Your task to perform on an android device: turn on javascript in the chrome app Image 0: 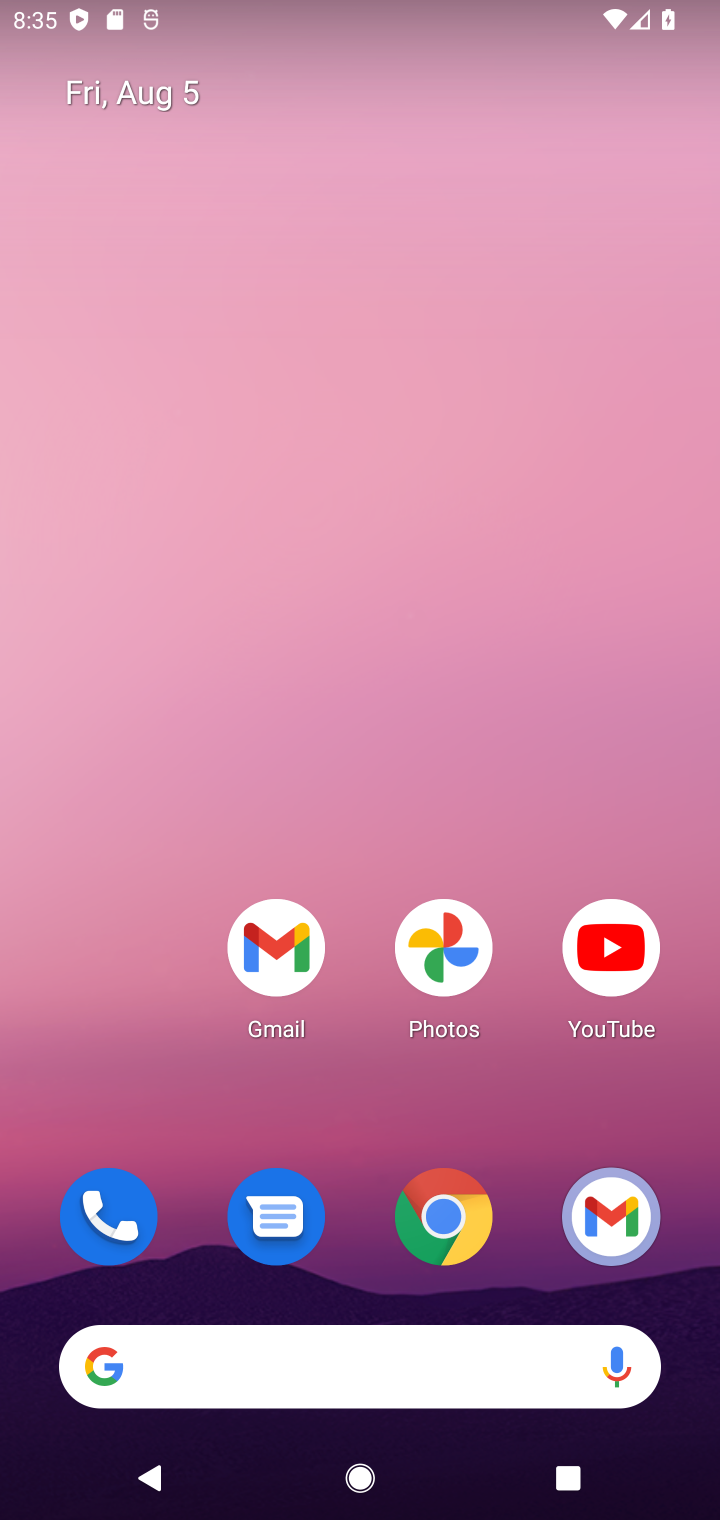
Step 0: drag from (350, 1256) to (376, 283)
Your task to perform on an android device: turn on javascript in the chrome app Image 1: 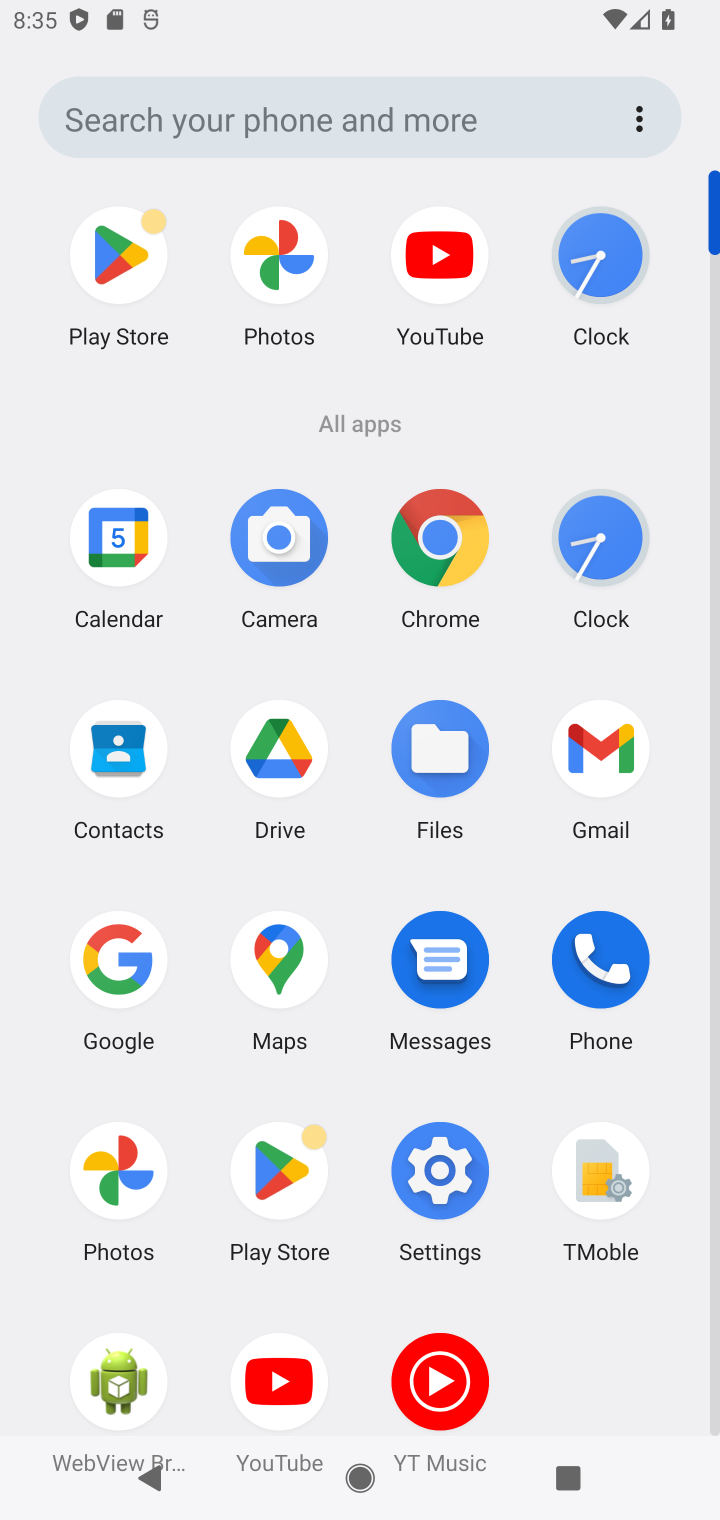
Step 1: click (443, 541)
Your task to perform on an android device: turn on javascript in the chrome app Image 2: 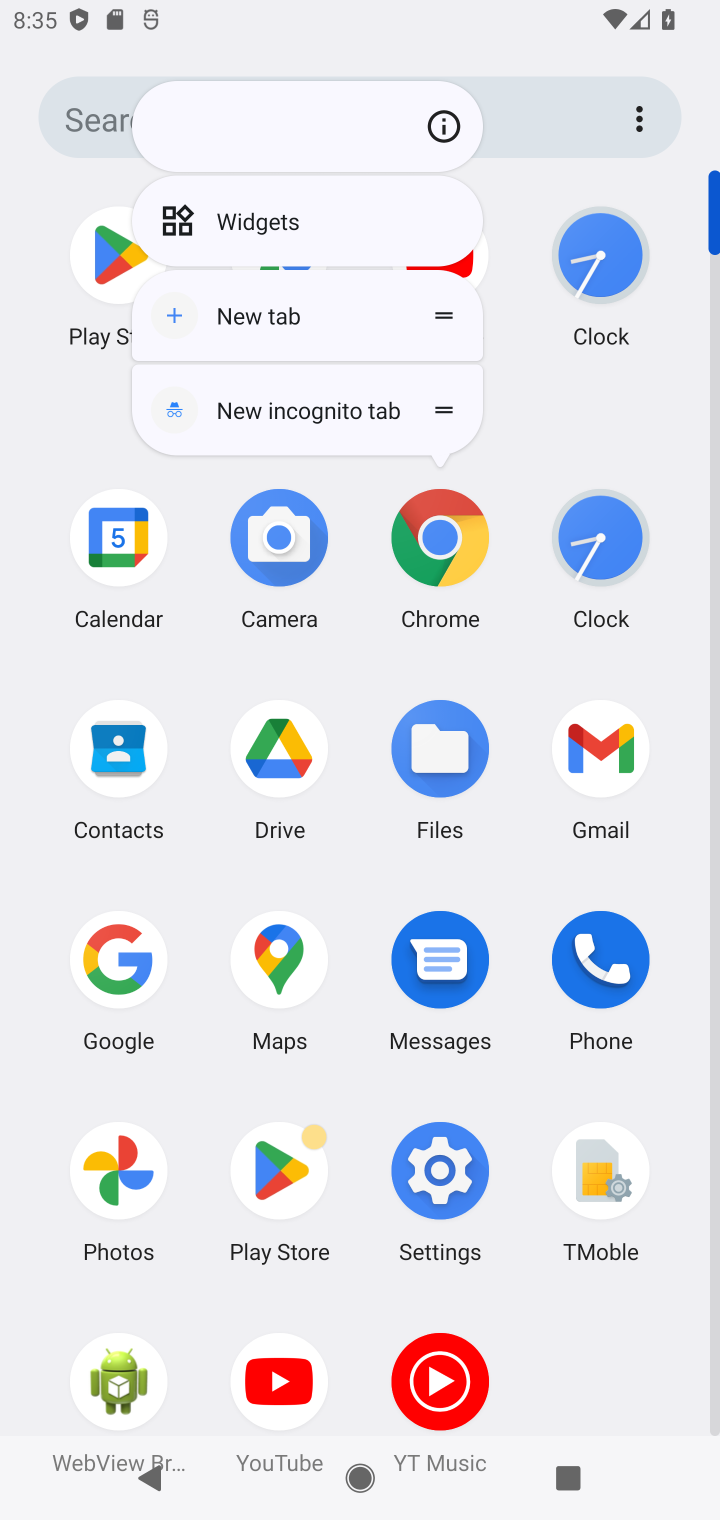
Step 2: click (433, 111)
Your task to perform on an android device: turn on javascript in the chrome app Image 3: 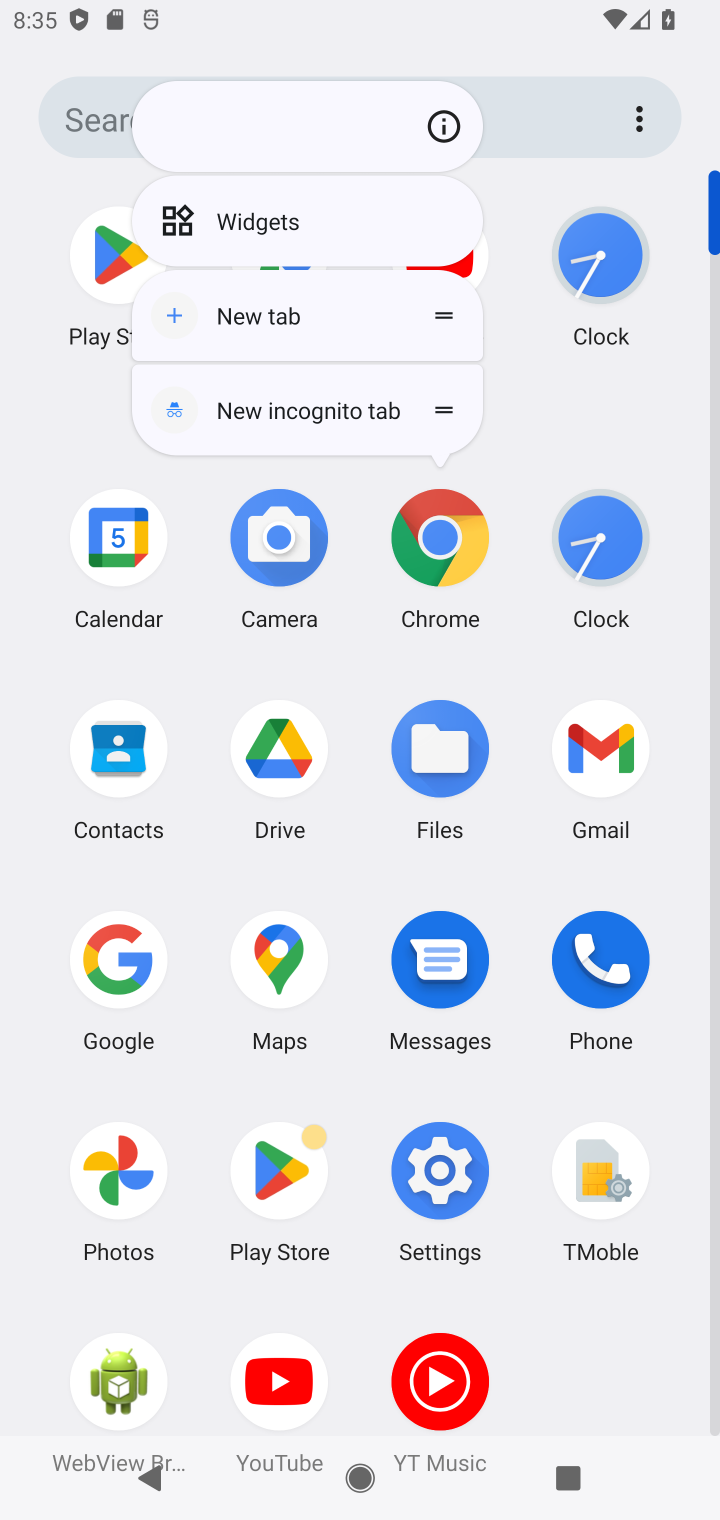
Step 3: click (436, 114)
Your task to perform on an android device: turn on javascript in the chrome app Image 4: 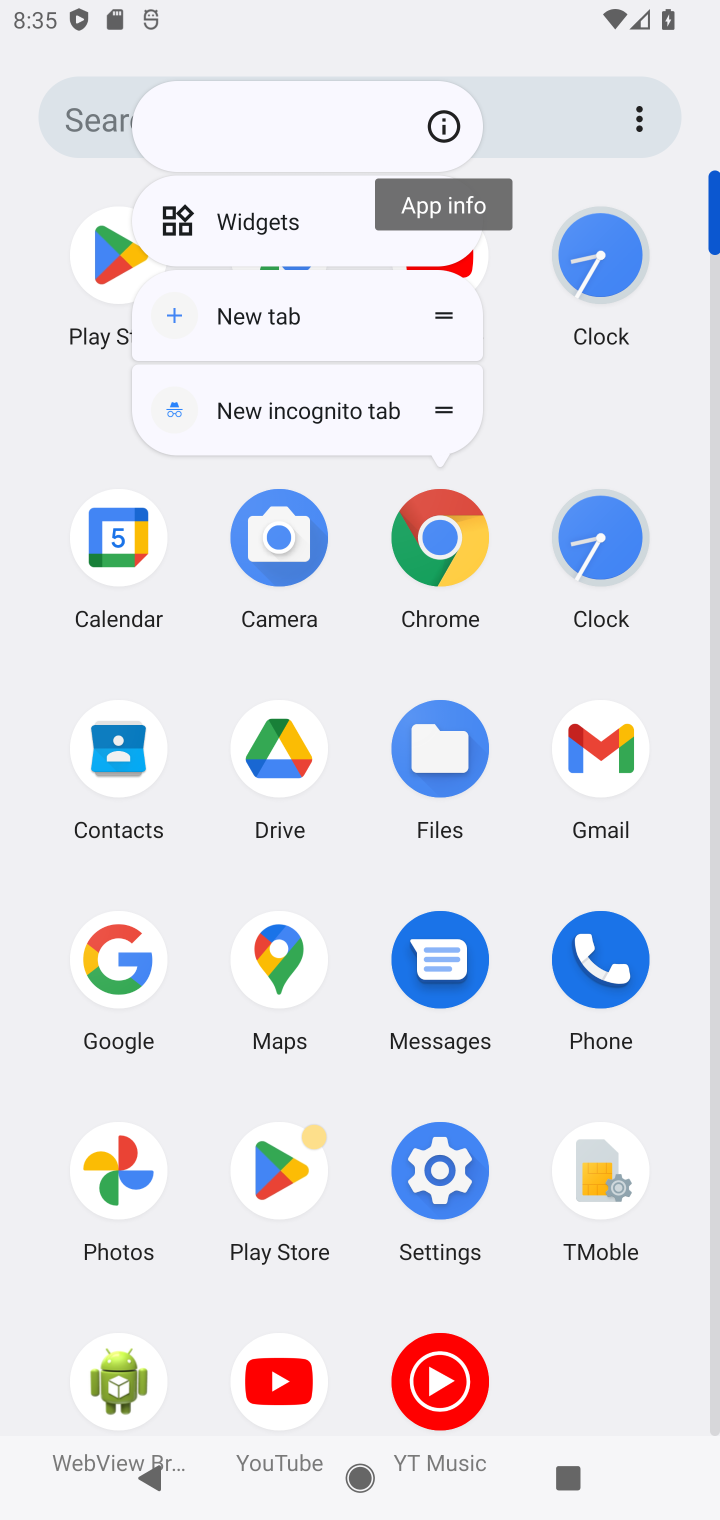
Step 4: click (436, 114)
Your task to perform on an android device: turn on javascript in the chrome app Image 5: 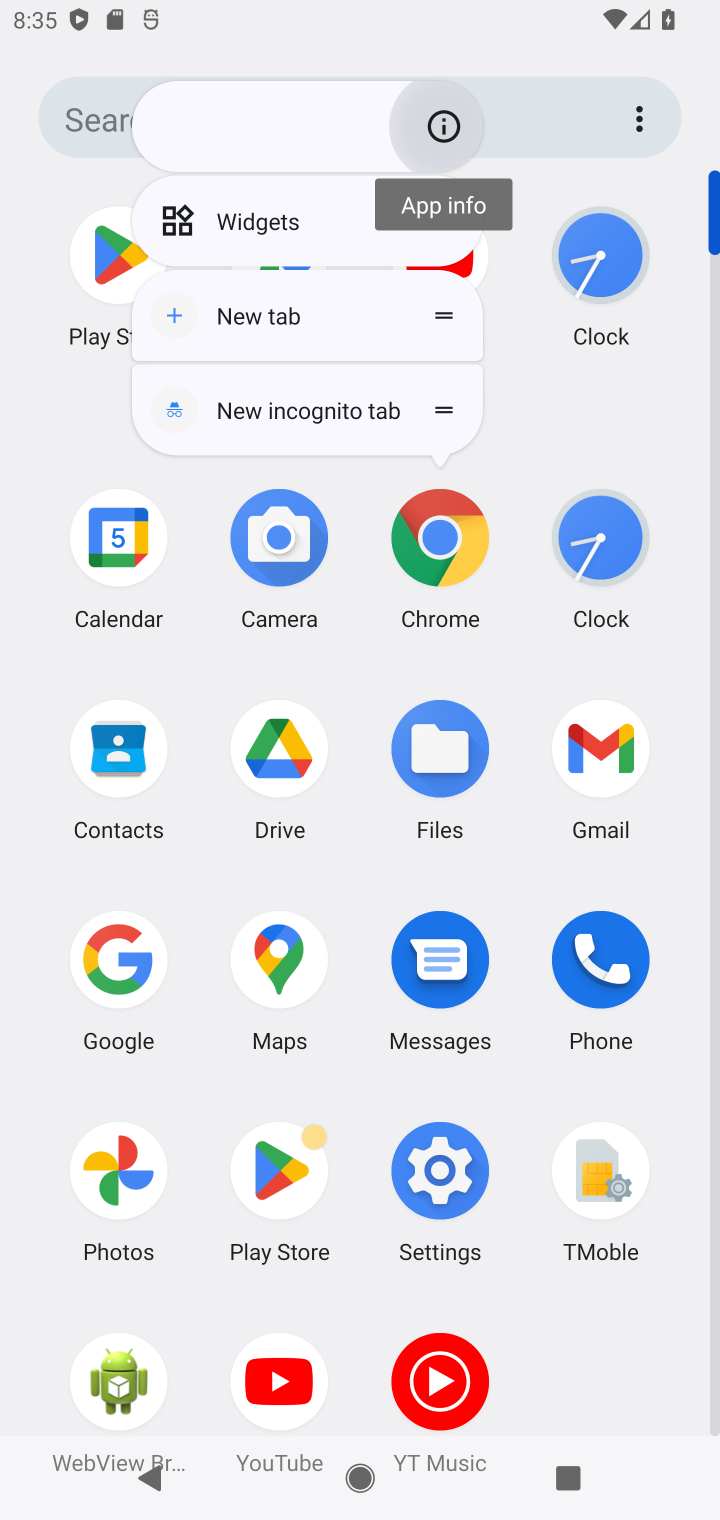
Step 5: click (438, 112)
Your task to perform on an android device: turn on javascript in the chrome app Image 6: 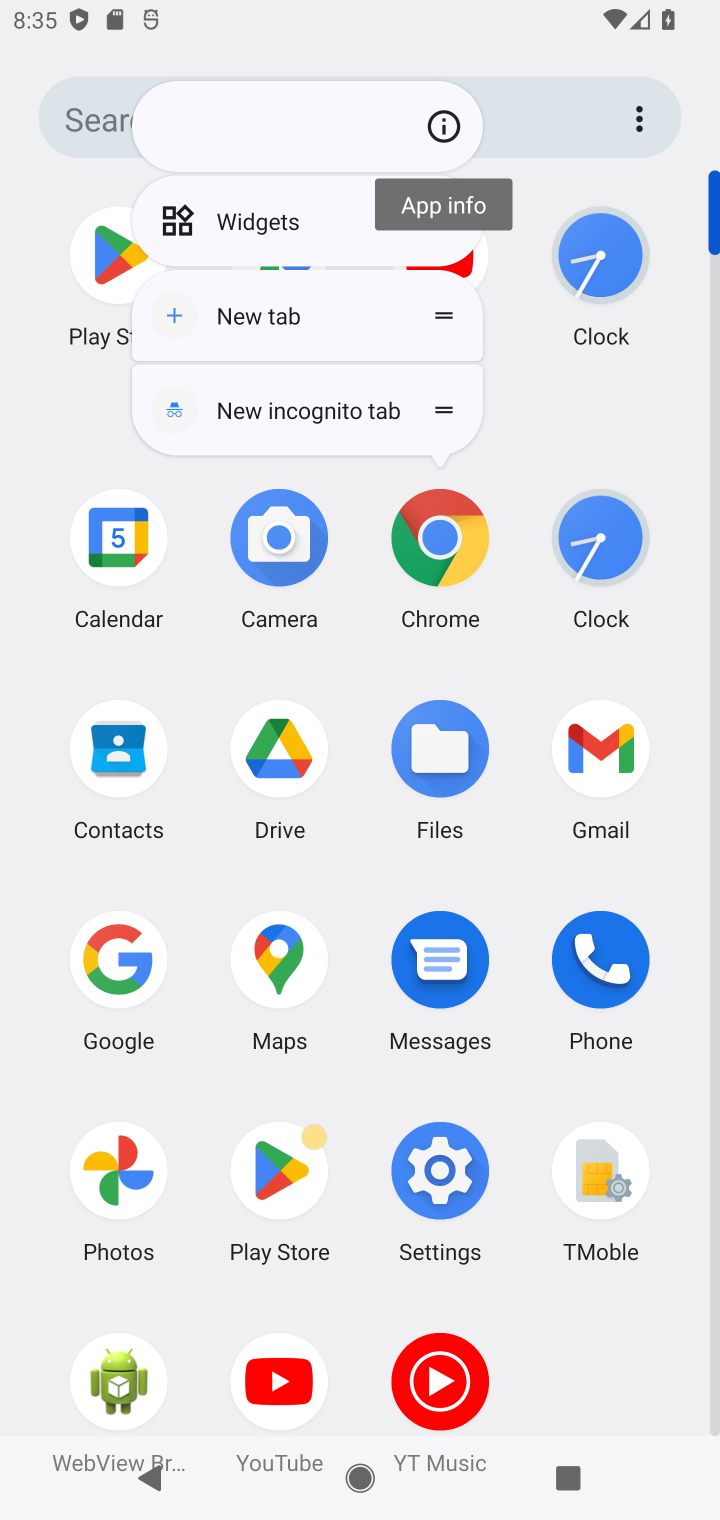
Step 6: click (412, 114)
Your task to perform on an android device: turn on javascript in the chrome app Image 7: 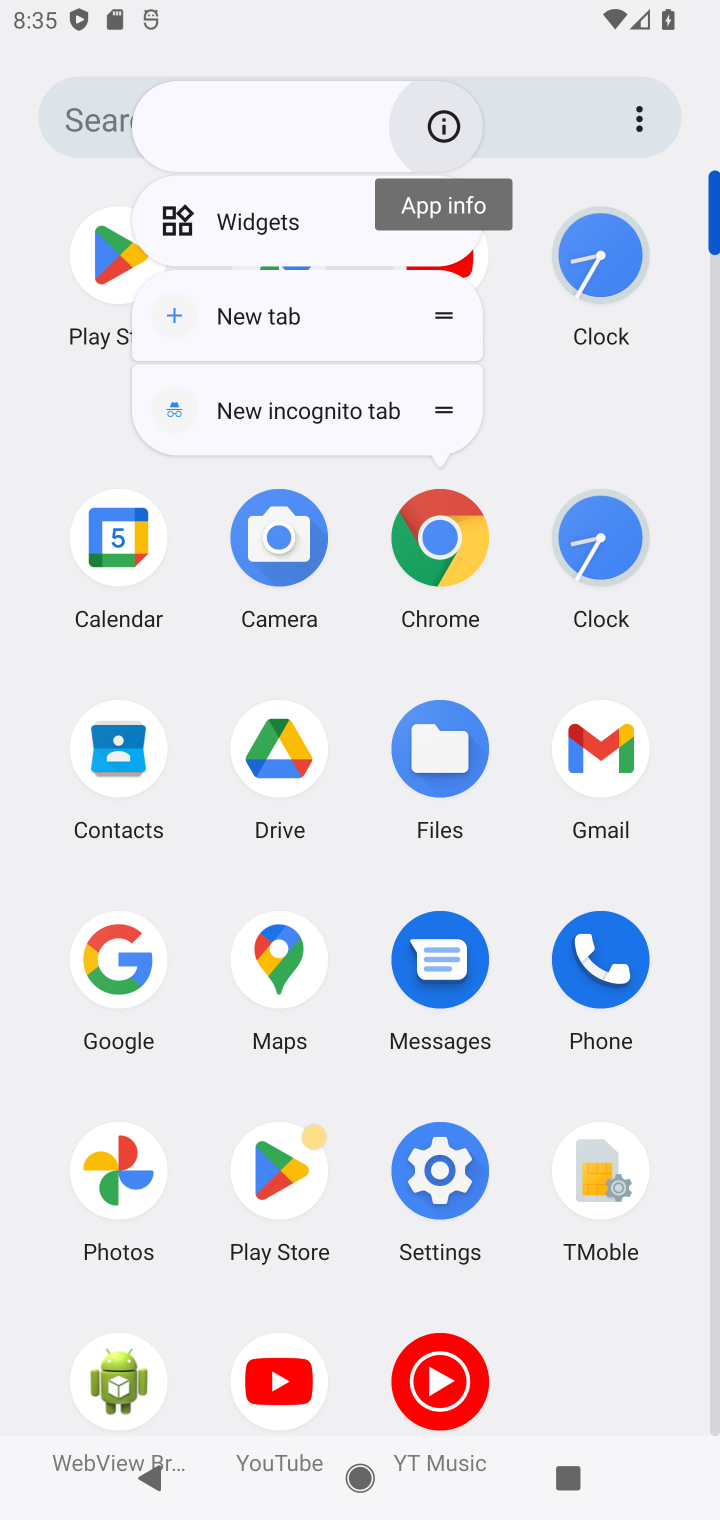
Step 7: click (445, 559)
Your task to perform on an android device: turn on javascript in the chrome app Image 8: 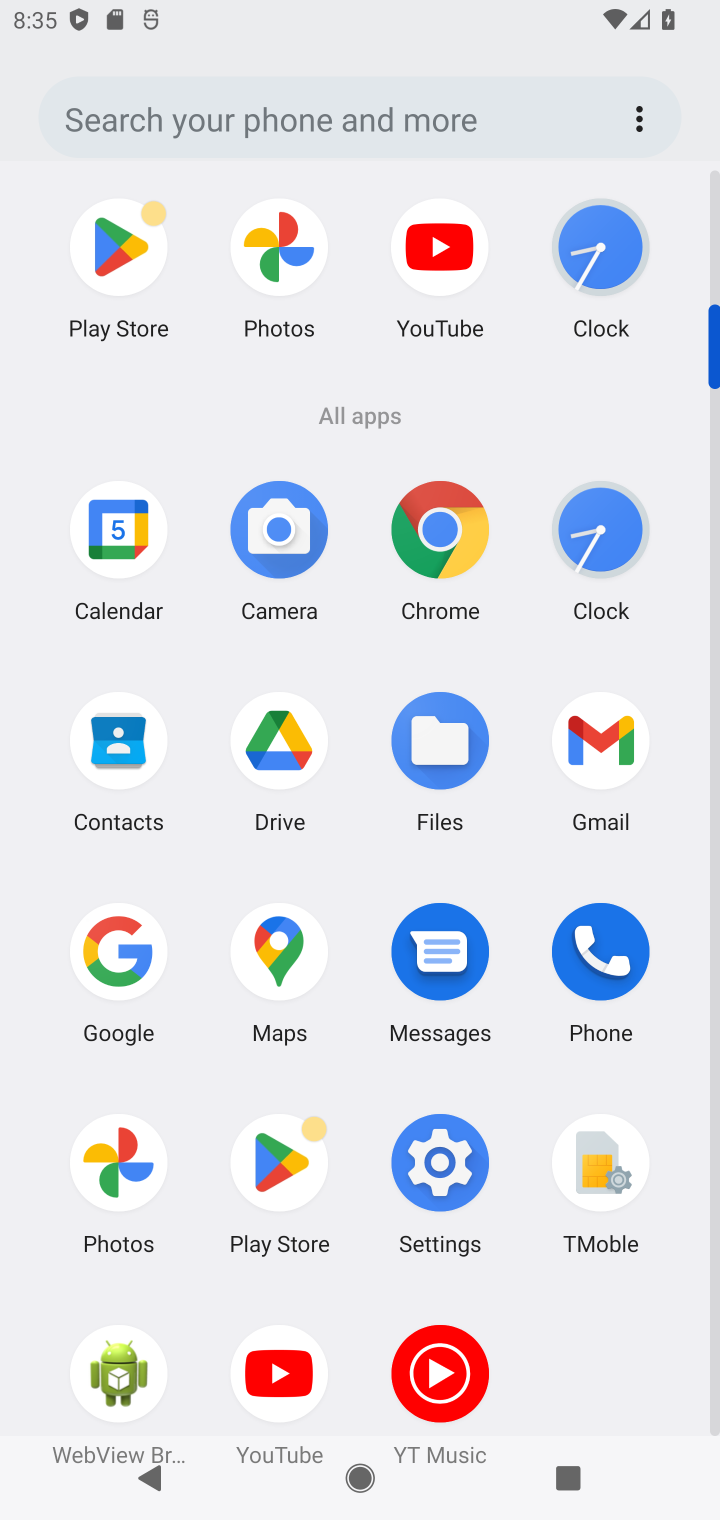
Step 8: click (414, 515)
Your task to perform on an android device: turn on javascript in the chrome app Image 9: 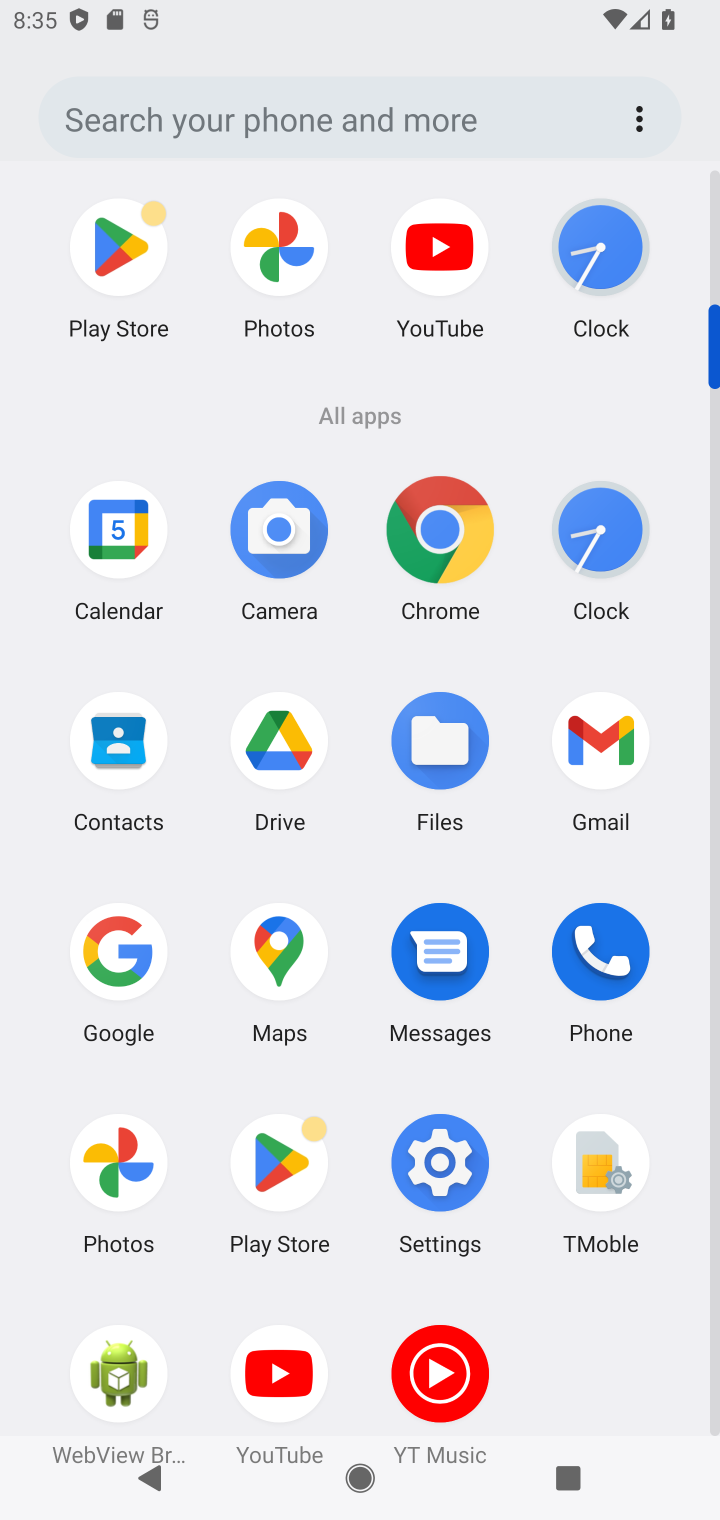
Step 9: click (414, 515)
Your task to perform on an android device: turn on javascript in the chrome app Image 10: 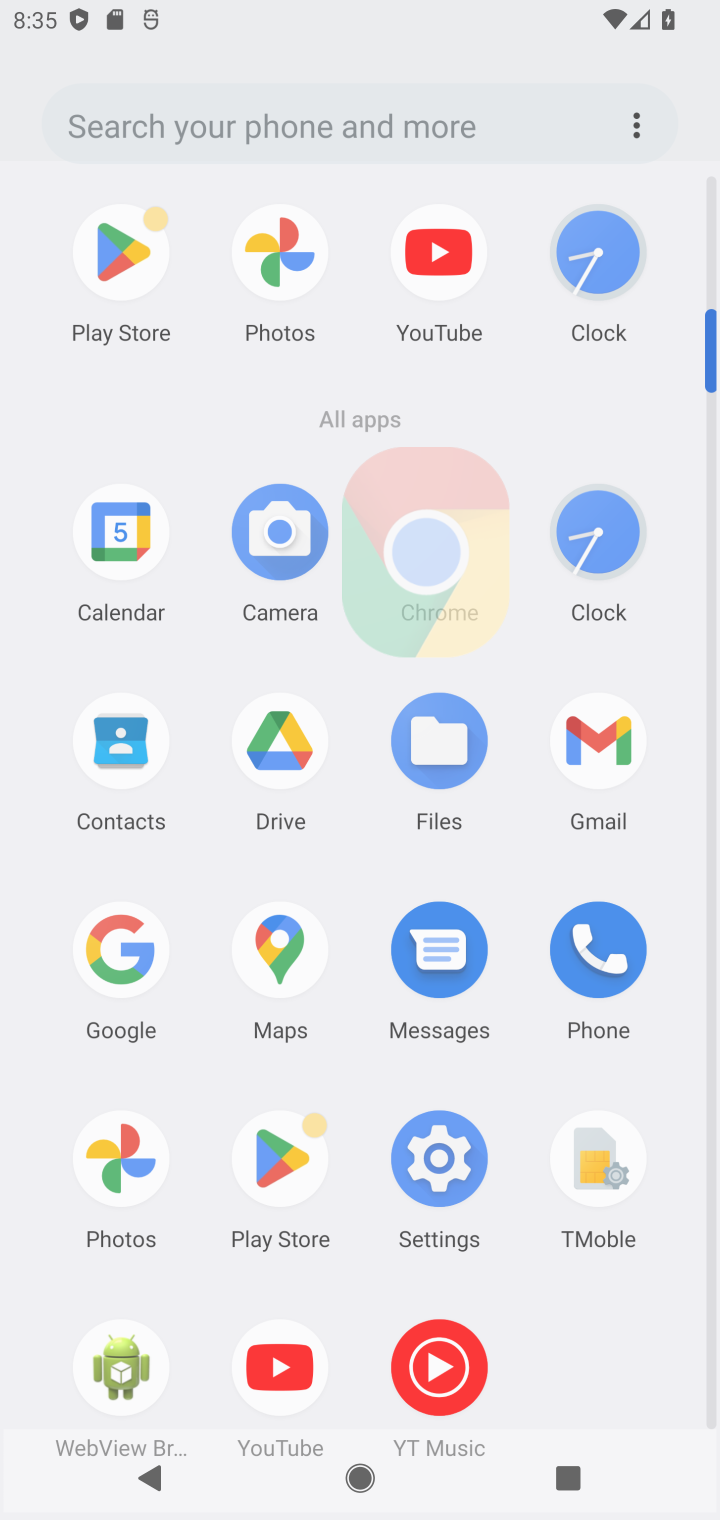
Step 10: click (425, 508)
Your task to perform on an android device: turn on javascript in the chrome app Image 11: 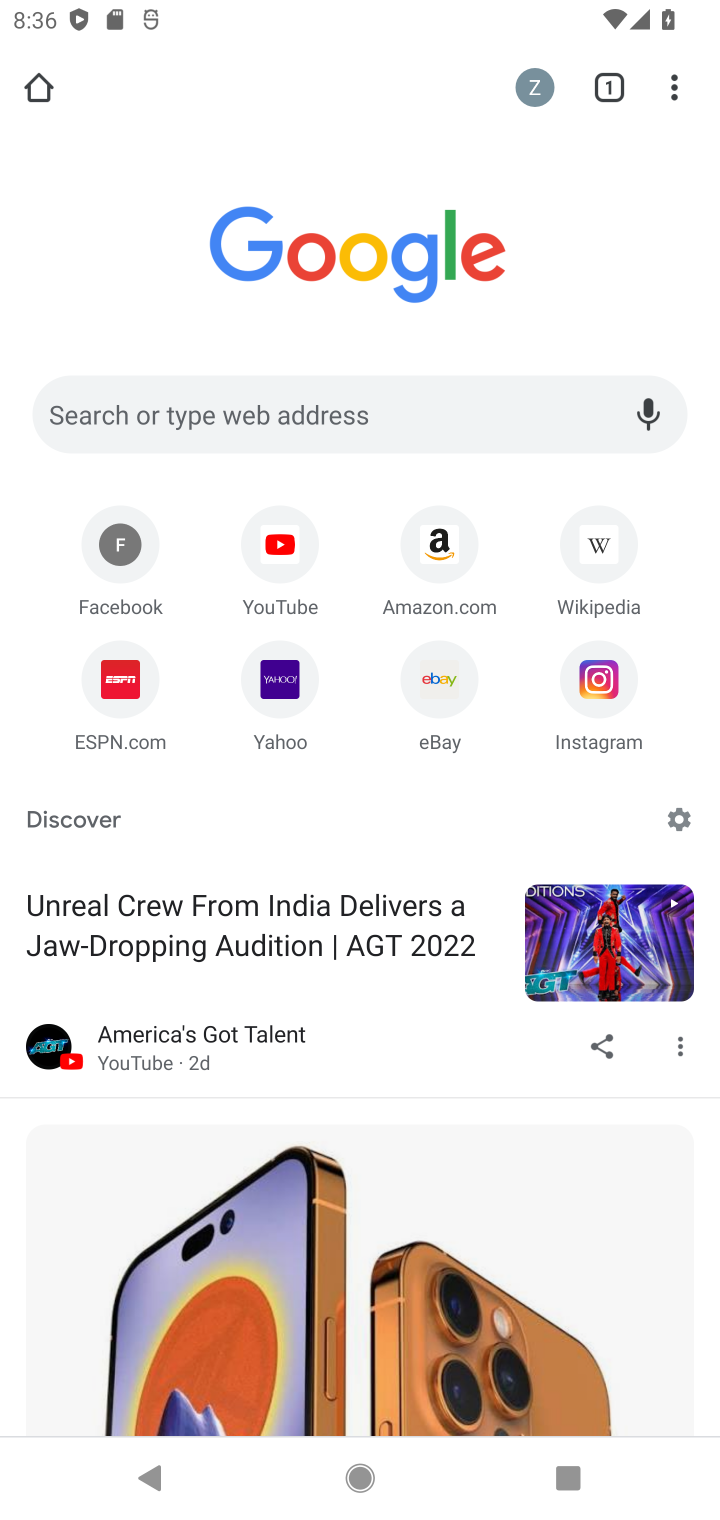
Step 11: drag from (681, 89) to (473, 858)
Your task to perform on an android device: turn on javascript in the chrome app Image 12: 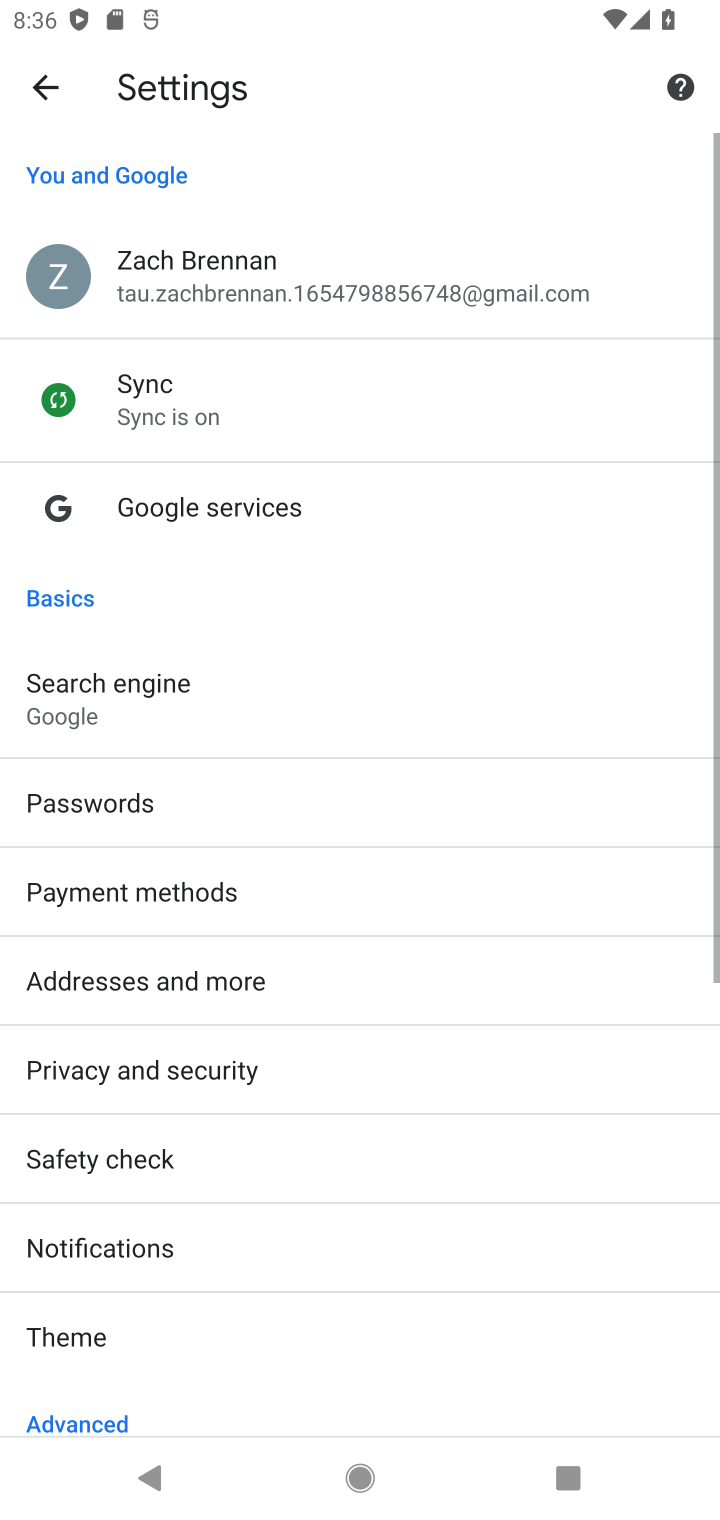
Step 12: drag from (243, 1081) to (360, 379)
Your task to perform on an android device: turn on javascript in the chrome app Image 13: 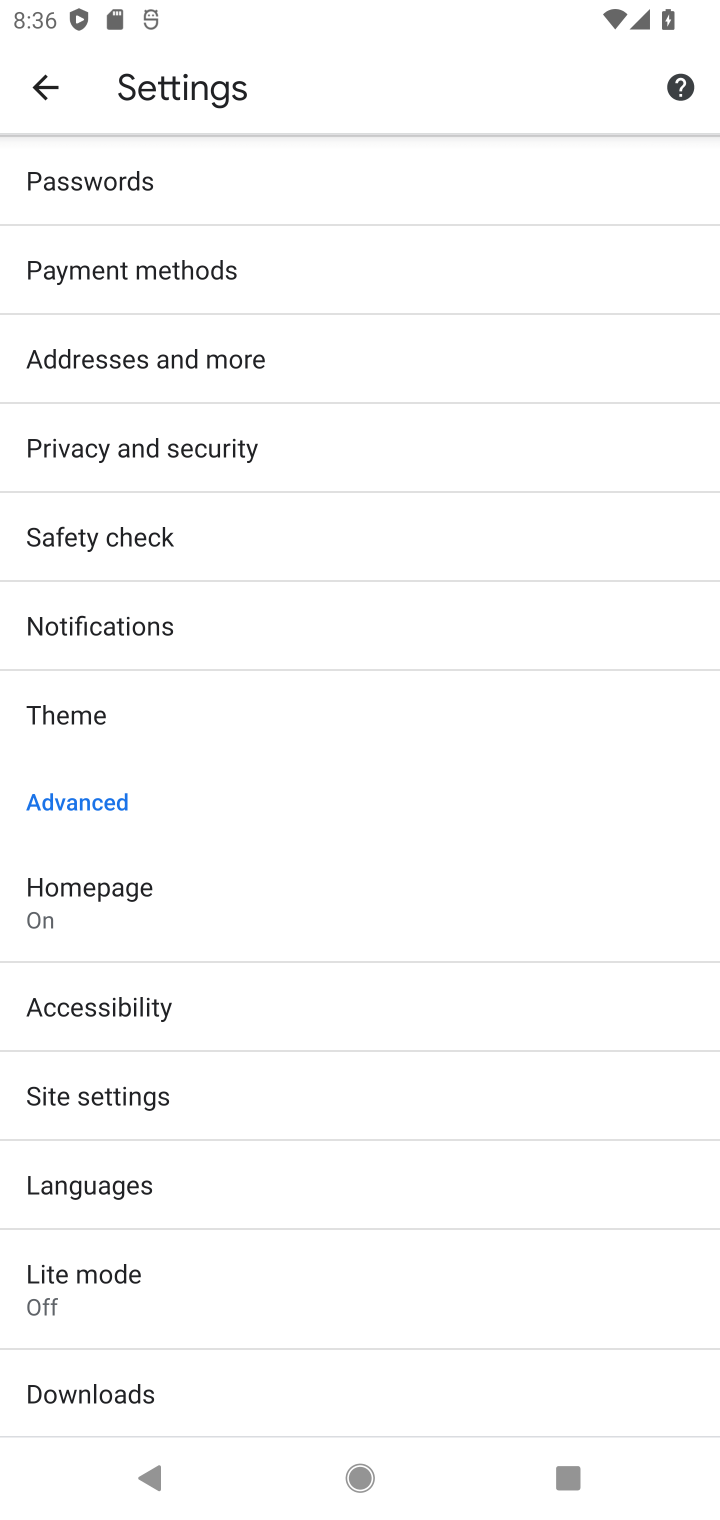
Step 13: click (162, 1095)
Your task to perform on an android device: turn on javascript in the chrome app Image 14: 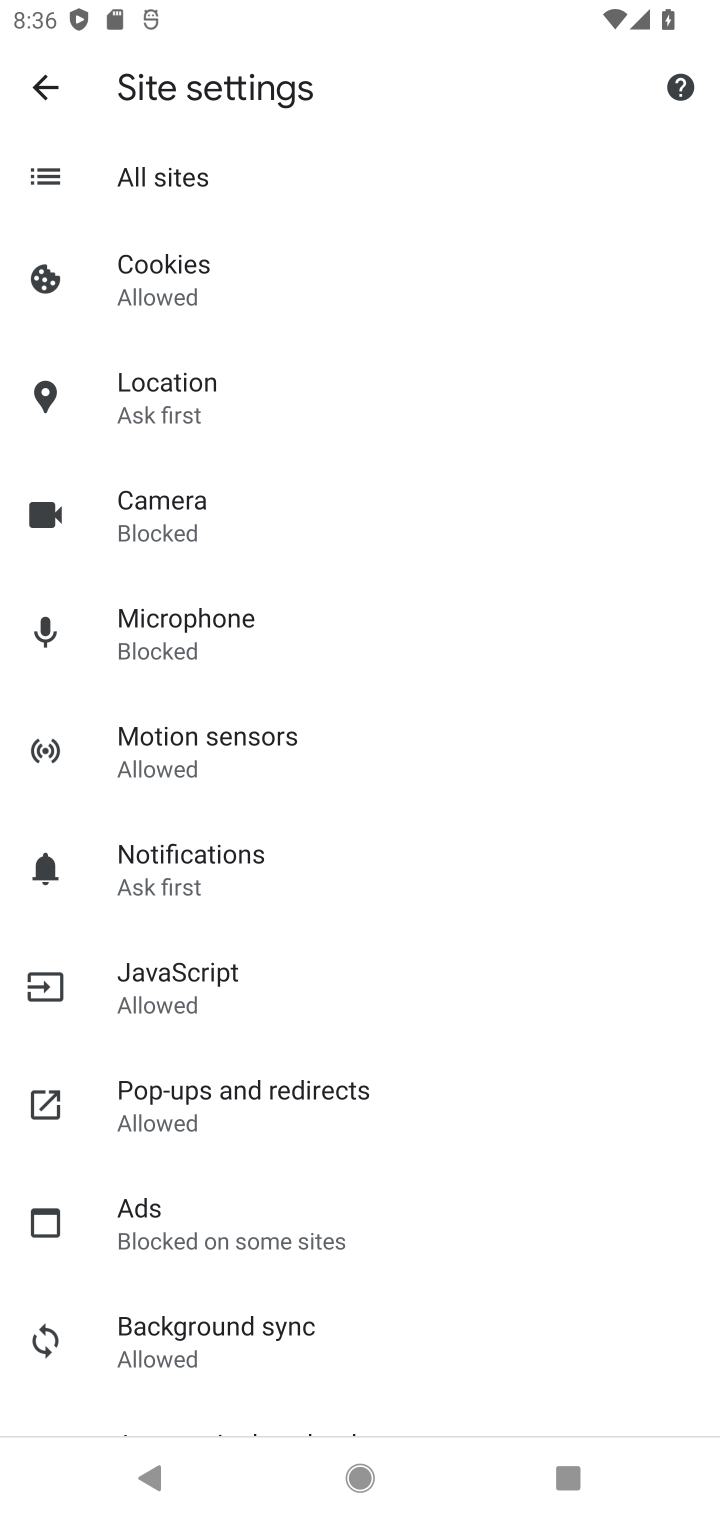
Step 14: click (170, 992)
Your task to perform on an android device: turn on javascript in the chrome app Image 15: 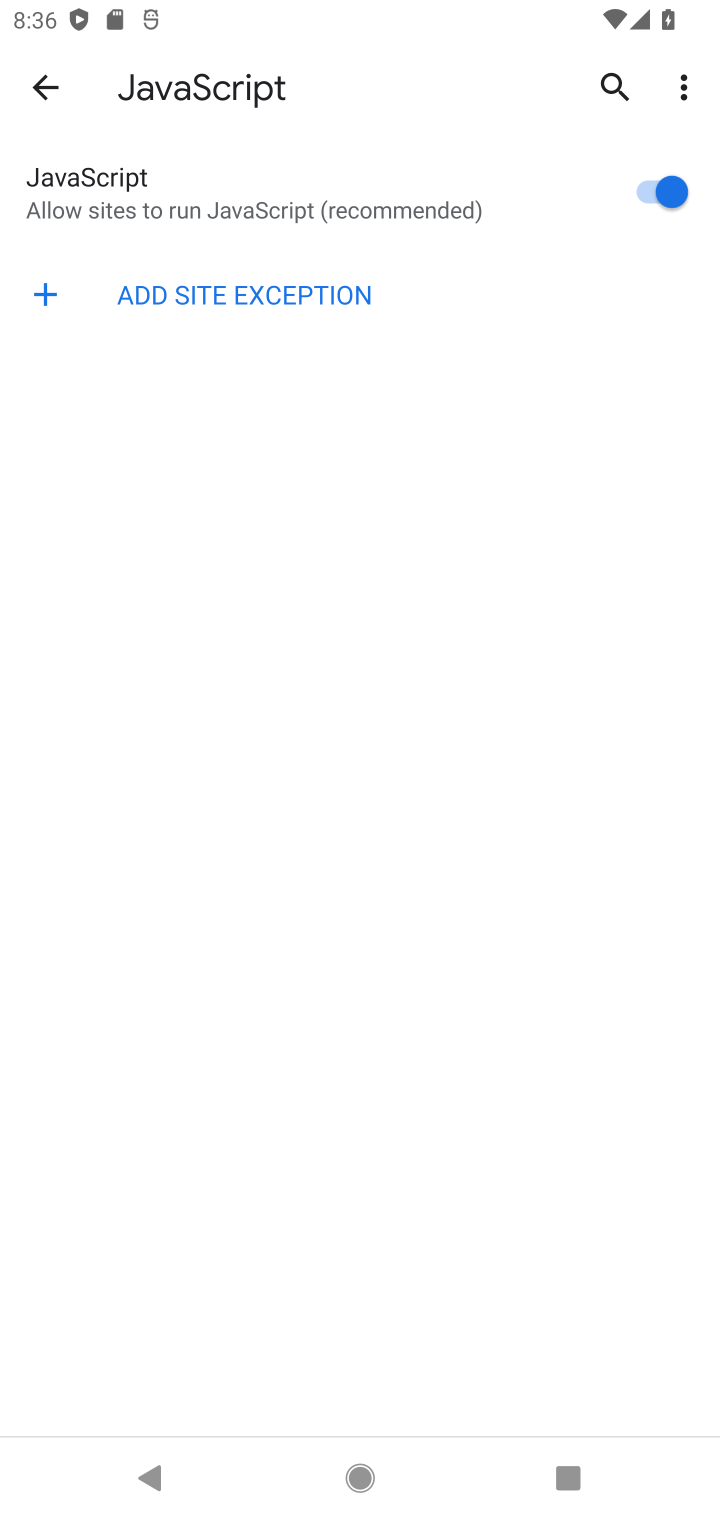
Step 15: task complete